Your task to perform on an android device: toggle notification dots Image 0: 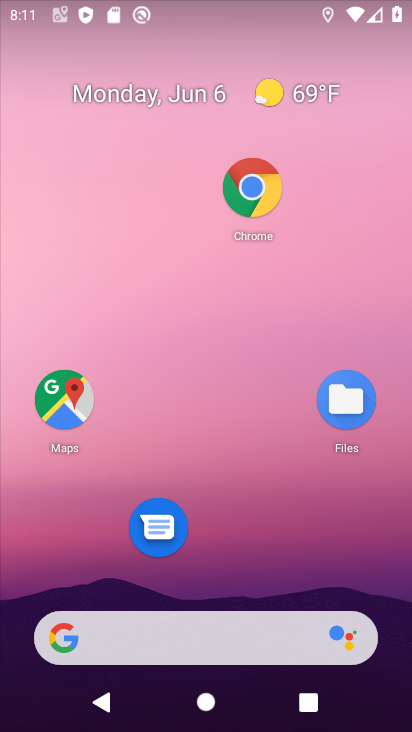
Step 0: drag from (273, 576) to (267, 110)
Your task to perform on an android device: toggle notification dots Image 1: 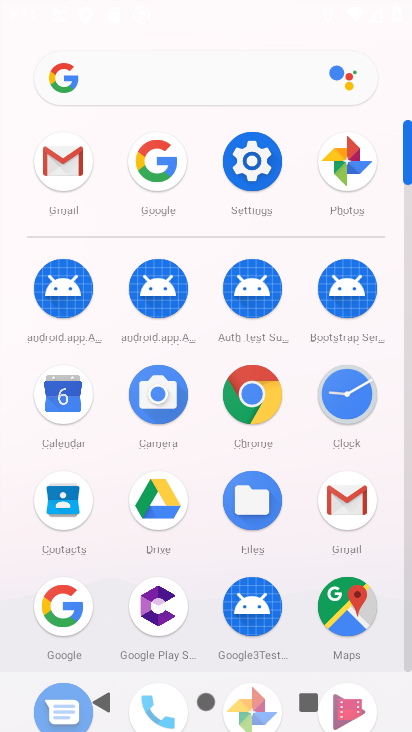
Step 1: click (250, 167)
Your task to perform on an android device: toggle notification dots Image 2: 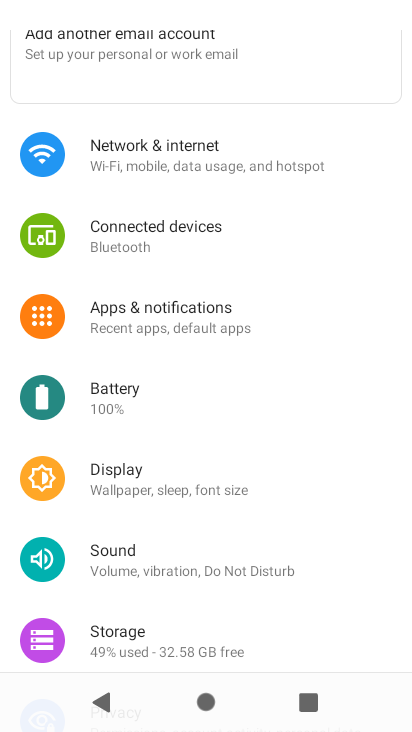
Step 2: click (217, 311)
Your task to perform on an android device: toggle notification dots Image 3: 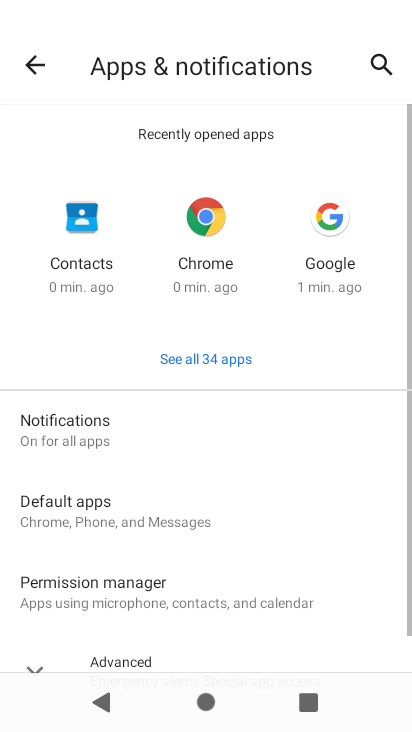
Step 3: click (114, 444)
Your task to perform on an android device: toggle notification dots Image 4: 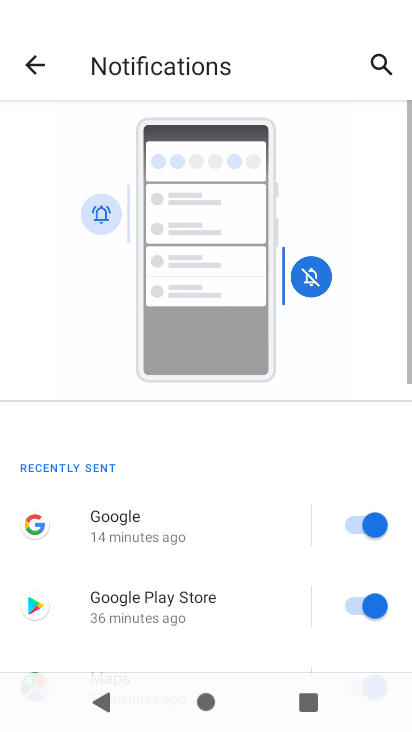
Step 4: drag from (203, 537) to (203, 11)
Your task to perform on an android device: toggle notification dots Image 5: 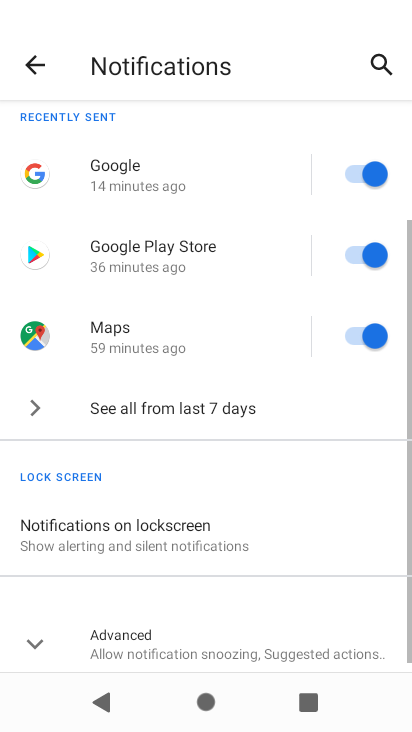
Step 5: click (137, 652)
Your task to perform on an android device: toggle notification dots Image 6: 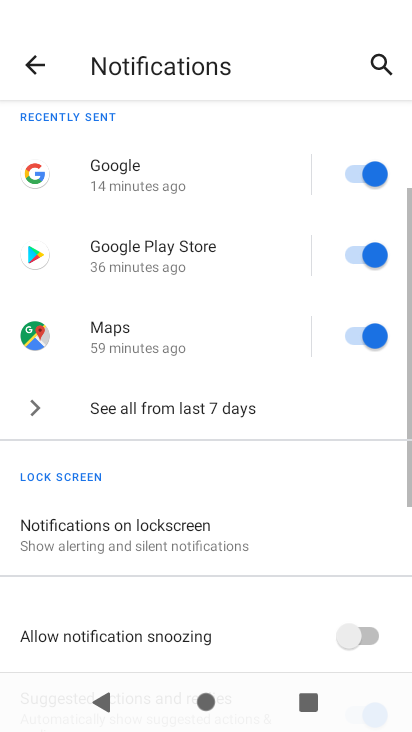
Step 6: drag from (249, 550) to (231, 108)
Your task to perform on an android device: toggle notification dots Image 7: 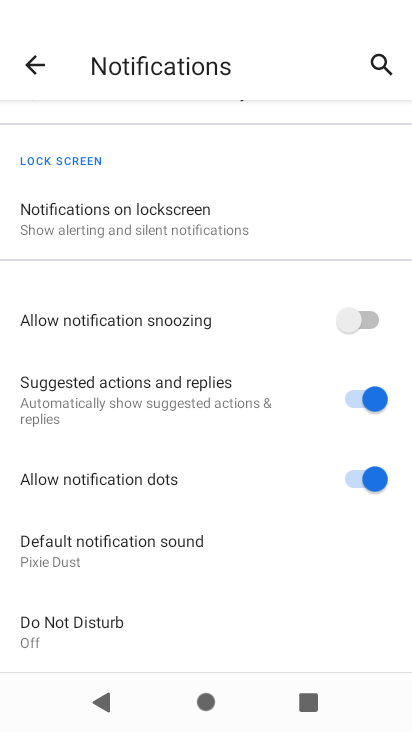
Step 7: click (385, 470)
Your task to perform on an android device: toggle notification dots Image 8: 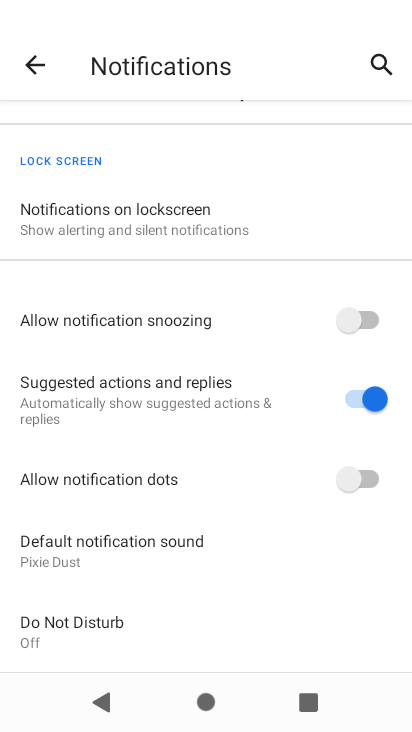
Step 8: task complete